Your task to perform on an android device: add a contact in the contacts app Image 0: 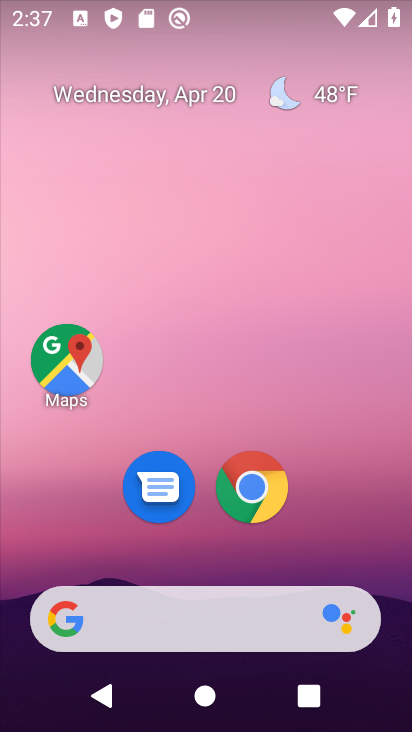
Step 0: drag from (186, 590) to (174, 280)
Your task to perform on an android device: add a contact in the contacts app Image 1: 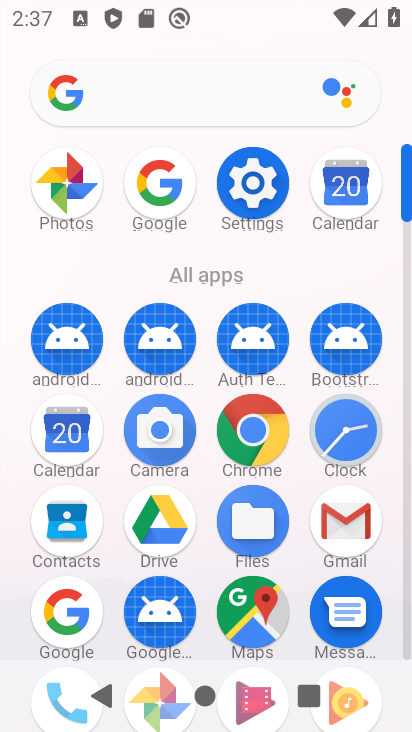
Step 1: click (70, 539)
Your task to perform on an android device: add a contact in the contacts app Image 2: 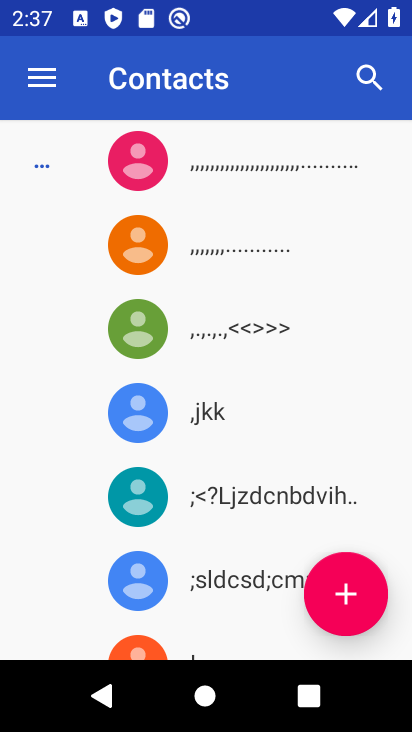
Step 2: drag from (202, 608) to (225, 282)
Your task to perform on an android device: add a contact in the contacts app Image 3: 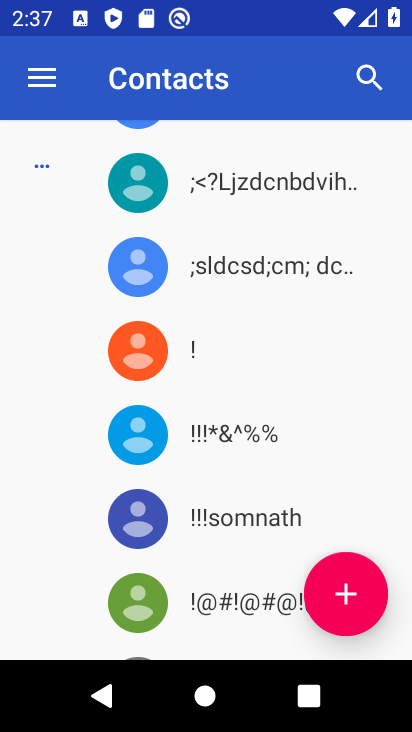
Step 3: click (351, 597)
Your task to perform on an android device: add a contact in the contacts app Image 4: 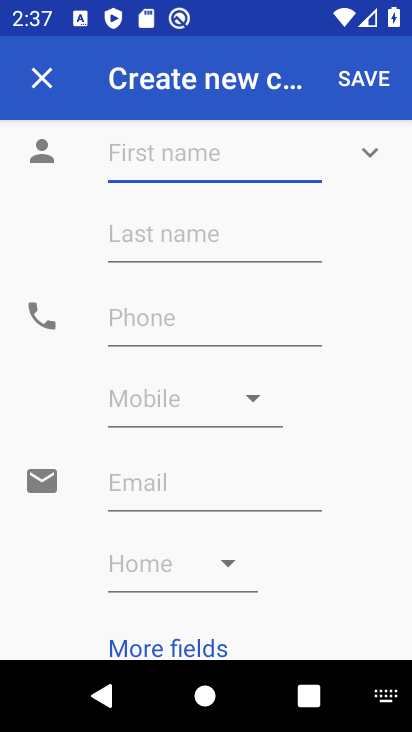
Step 4: type "pallu"
Your task to perform on an android device: add a contact in the contacts app Image 5: 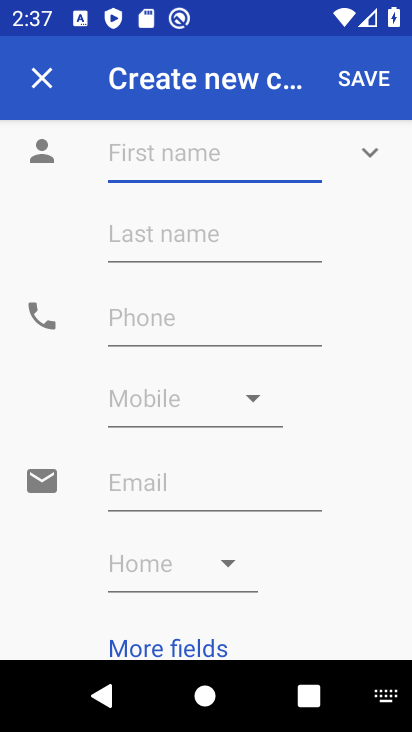
Step 5: click (188, 248)
Your task to perform on an android device: add a contact in the contacts app Image 6: 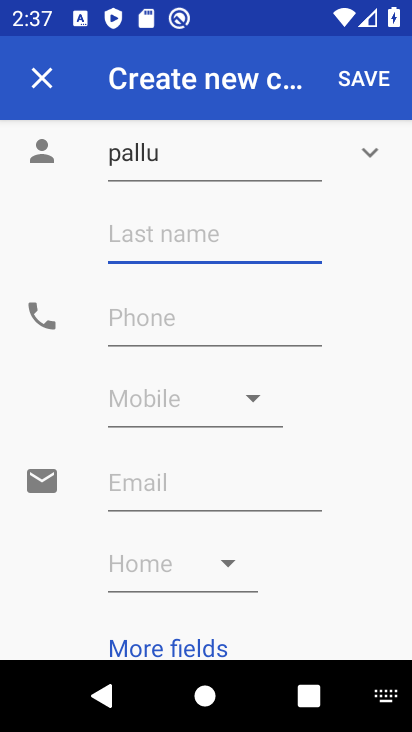
Step 6: type "du"
Your task to perform on an android device: add a contact in the contacts app Image 7: 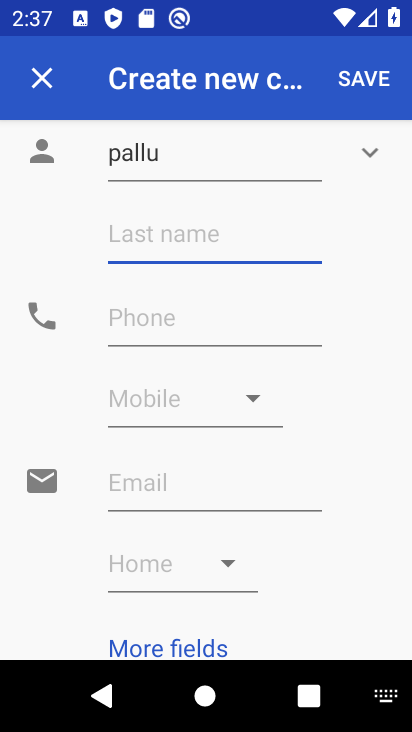
Step 7: click (140, 324)
Your task to perform on an android device: add a contact in the contacts app Image 8: 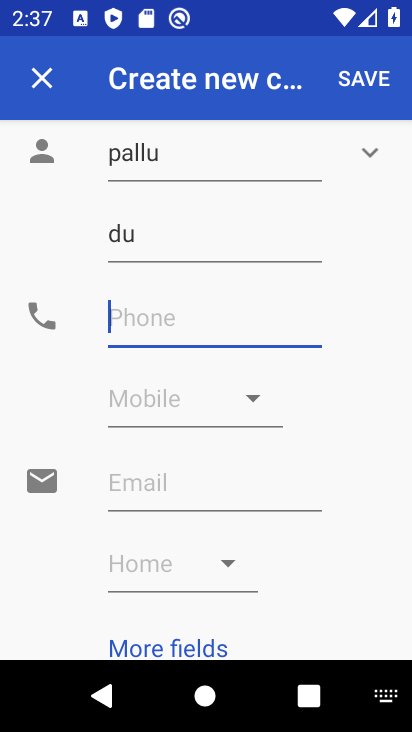
Step 8: type "8546089780"
Your task to perform on an android device: add a contact in the contacts app Image 9: 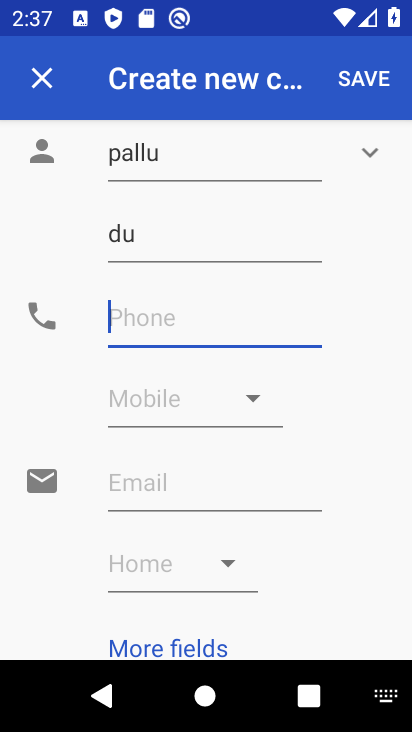
Step 9: click (186, 487)
Your task to perform on an android device: add a contact in the contacts app Image 10: 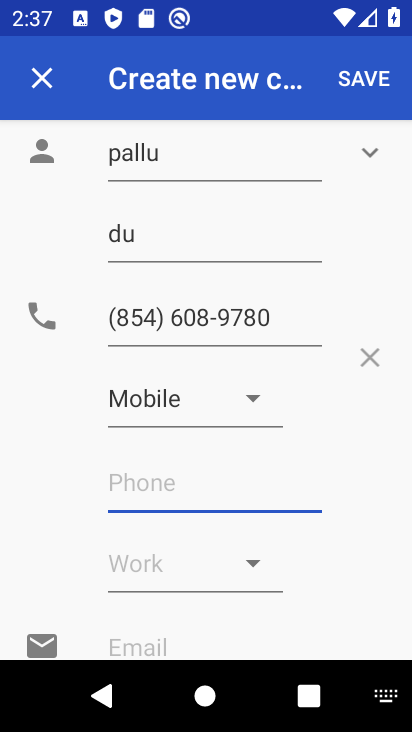
Step 10: click (368, 73)
Your task to perform on an android device: add a contact in the contacts app Image 11: 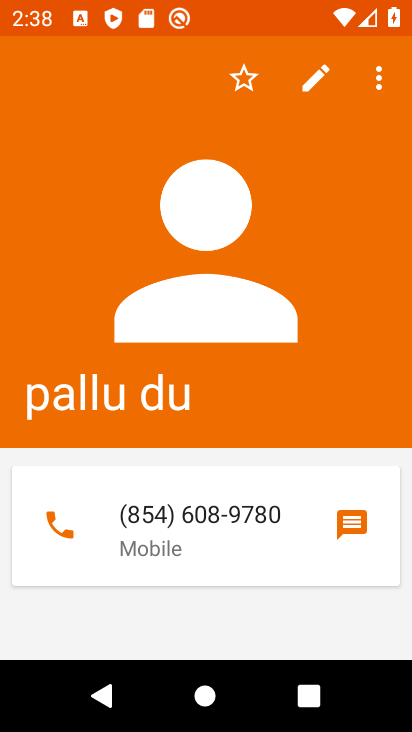
Step 11: task complete